Your task to perform on an android device: Toggle the flashlight Image 0: 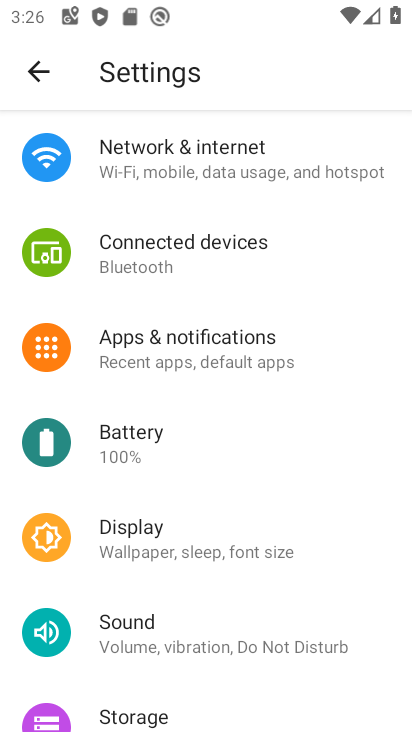
Step 0: drag from (270, 216) to (232, 583)
Your task to perform on an android device: Toggle the flashlight Image 1: 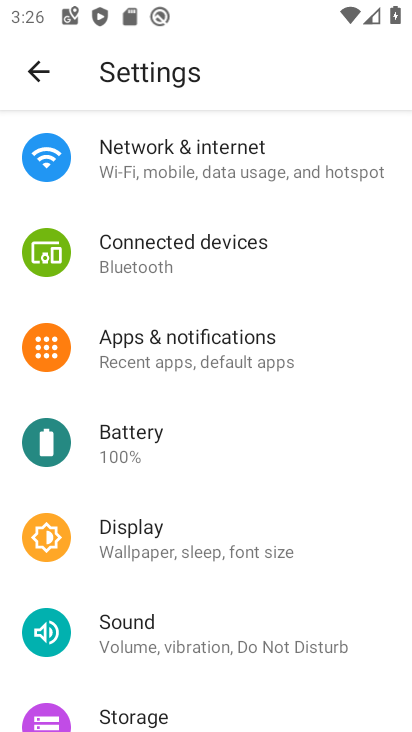
Step 1: click (36, 59)
Your task to perform on an android device: Toggle the flashlight Image 2: 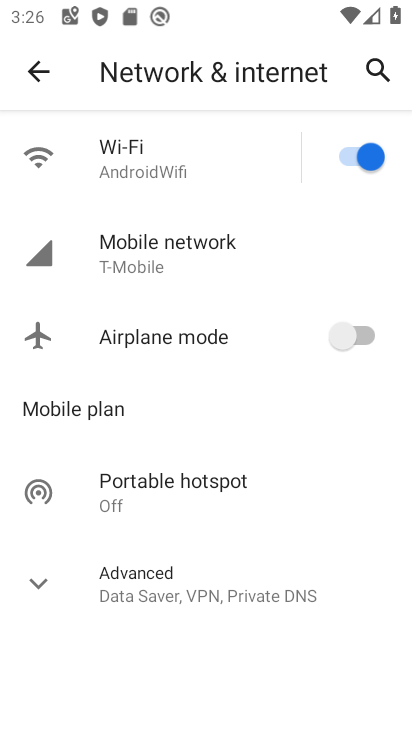
Step 2: click (42, 67)
Your task to perform on an android device: Toggle the flashlight Image 3: 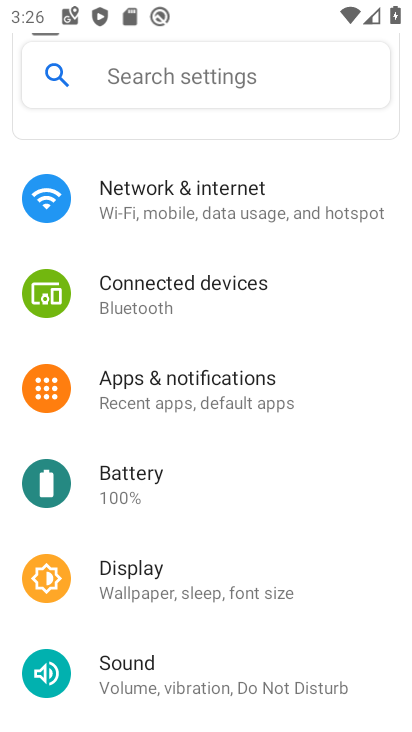
Step 3: drag from (198, 210) to (232, 498)
Your task to perform on an android device: Toggle the flashlight Image 4: 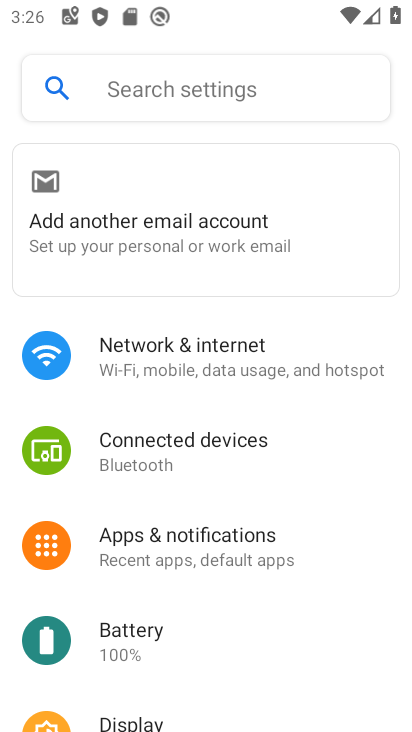
Step 4: click (286, 88)
Your task to perform on an android device: Toggle the flashlight Image 5: 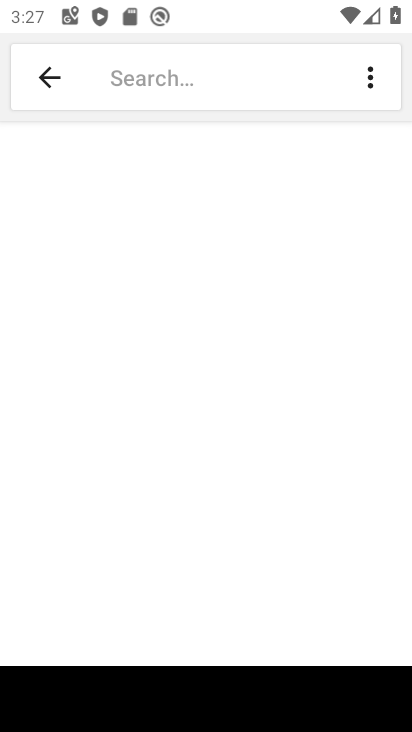
Step 5: type "Flashlight"
Your task to perform on an android device: Toggle the flashlight Image 6: 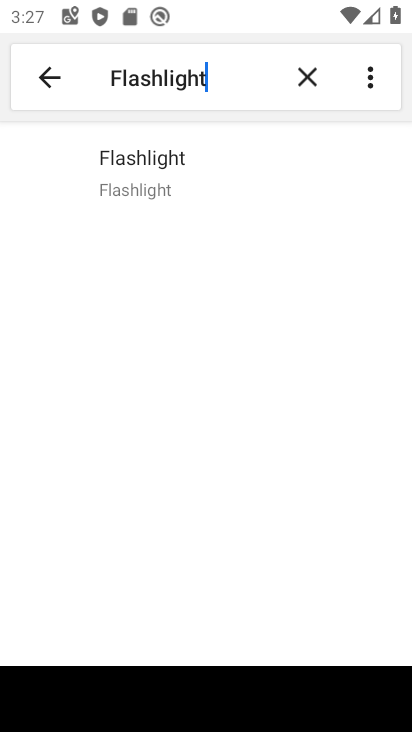
Step 6: click (158, 174)
Your task to perform on an android device: Toggle the flashlight Image 7: 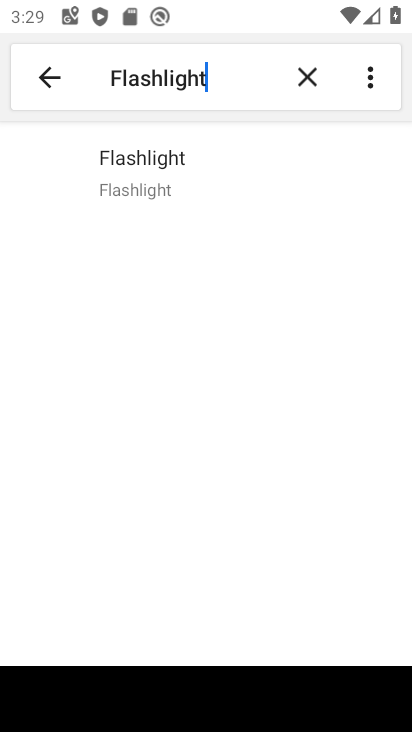
Step 7: task complete